Your task to perform on an android device: Go to Android settings Image 0: 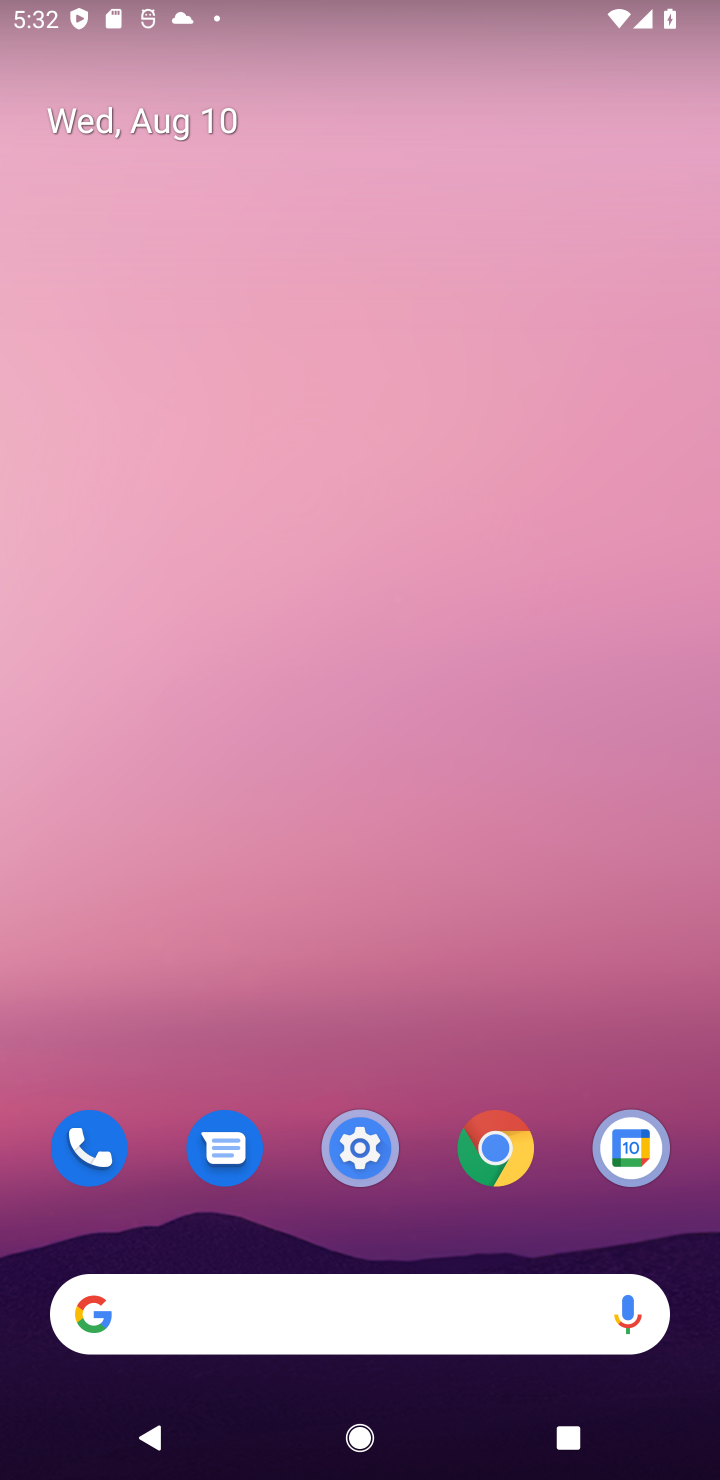
Step 0: click (375, 1140)
Your task to perform on an android device: Go to Android settings Image 1: 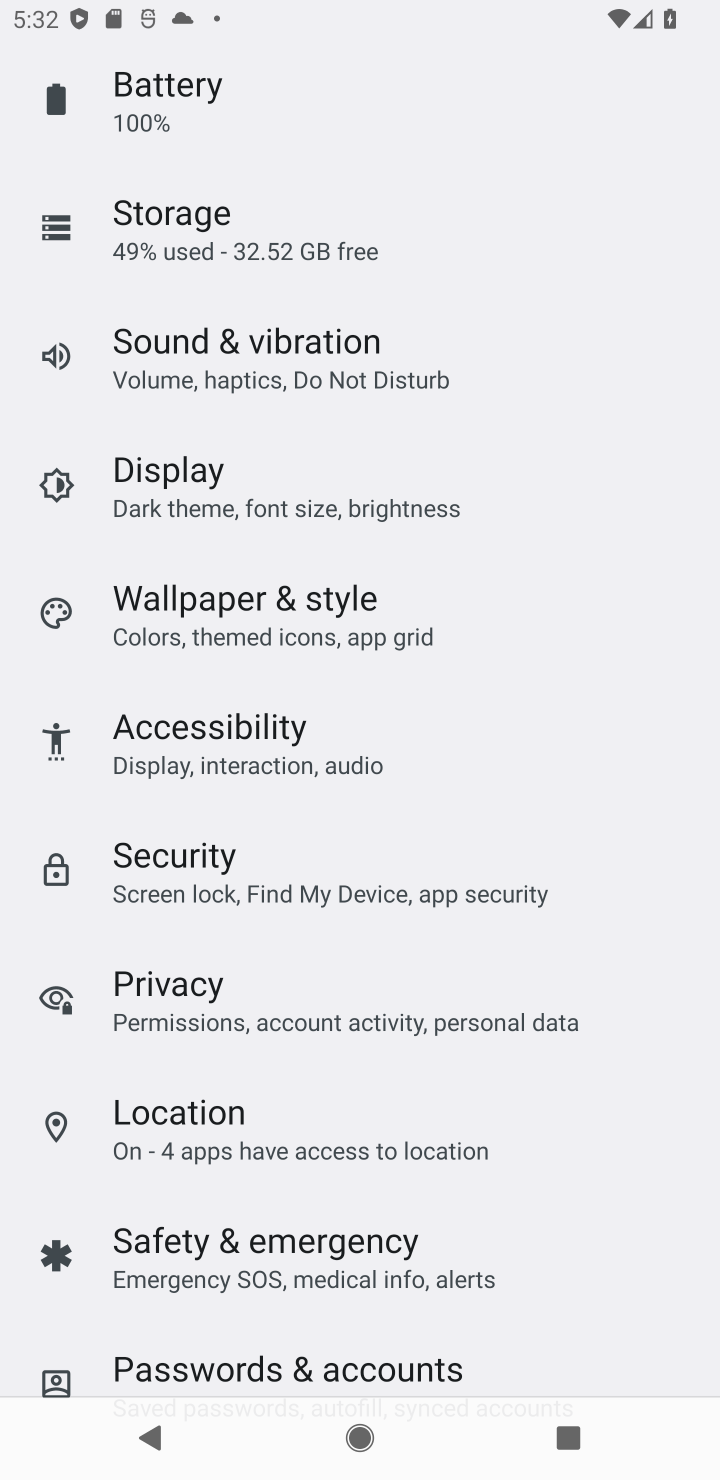
Step 1: drag from (285, 1195) to (395, 74)
Your task to perform on an android device: Go to Android settings Image 2: 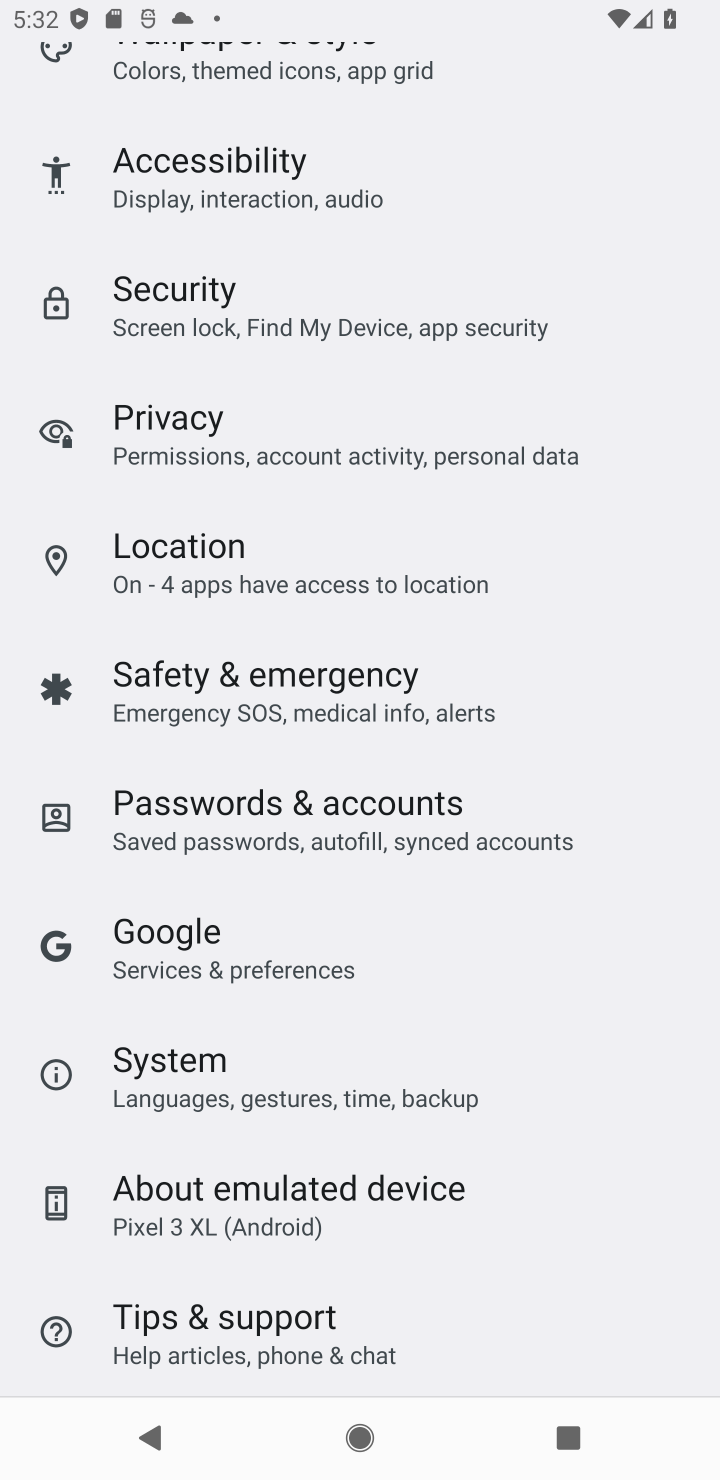
Step 2: drag from (563, 1184) to (581, 781)
Your task to perform on an android device: Go to Android settings Image 3: 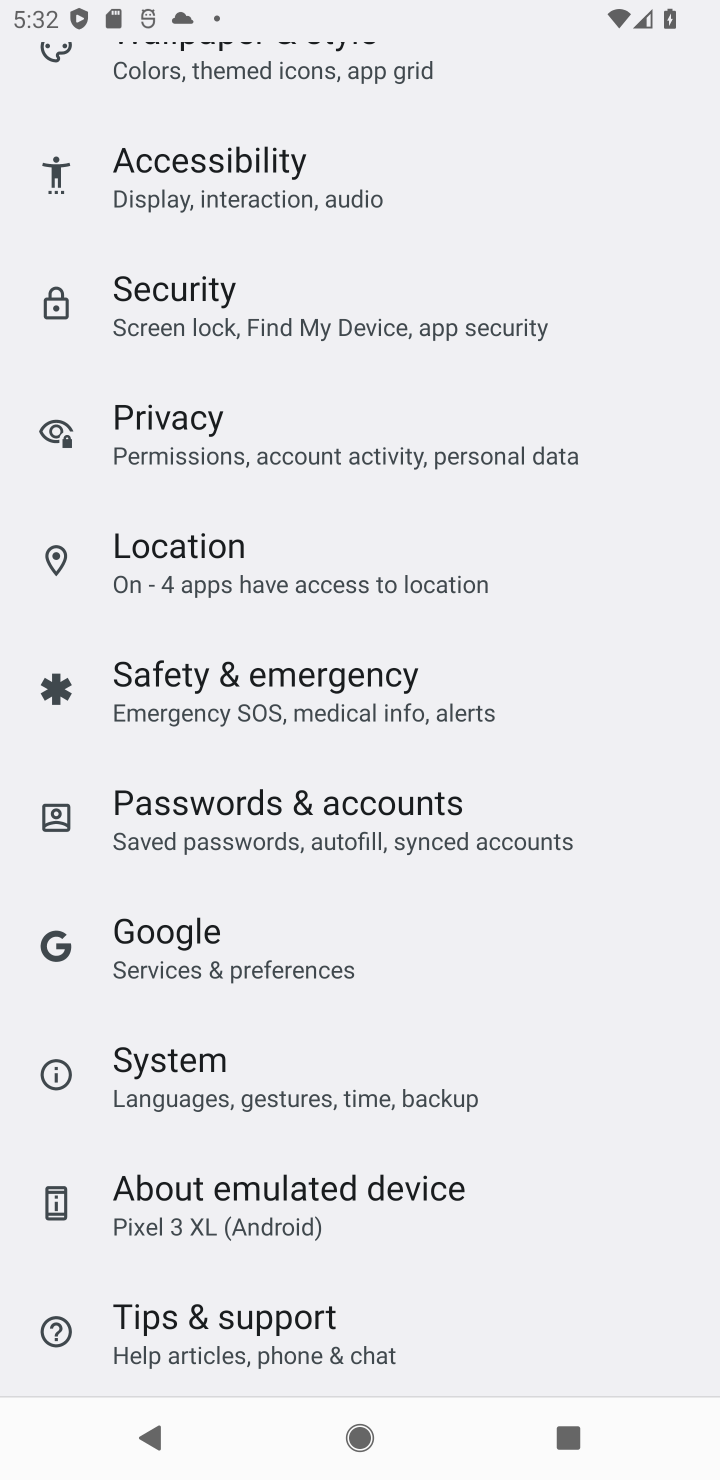
Step 3: click (215, 1187)
Your task to perform on an android device: Go to Android settings Image 4: 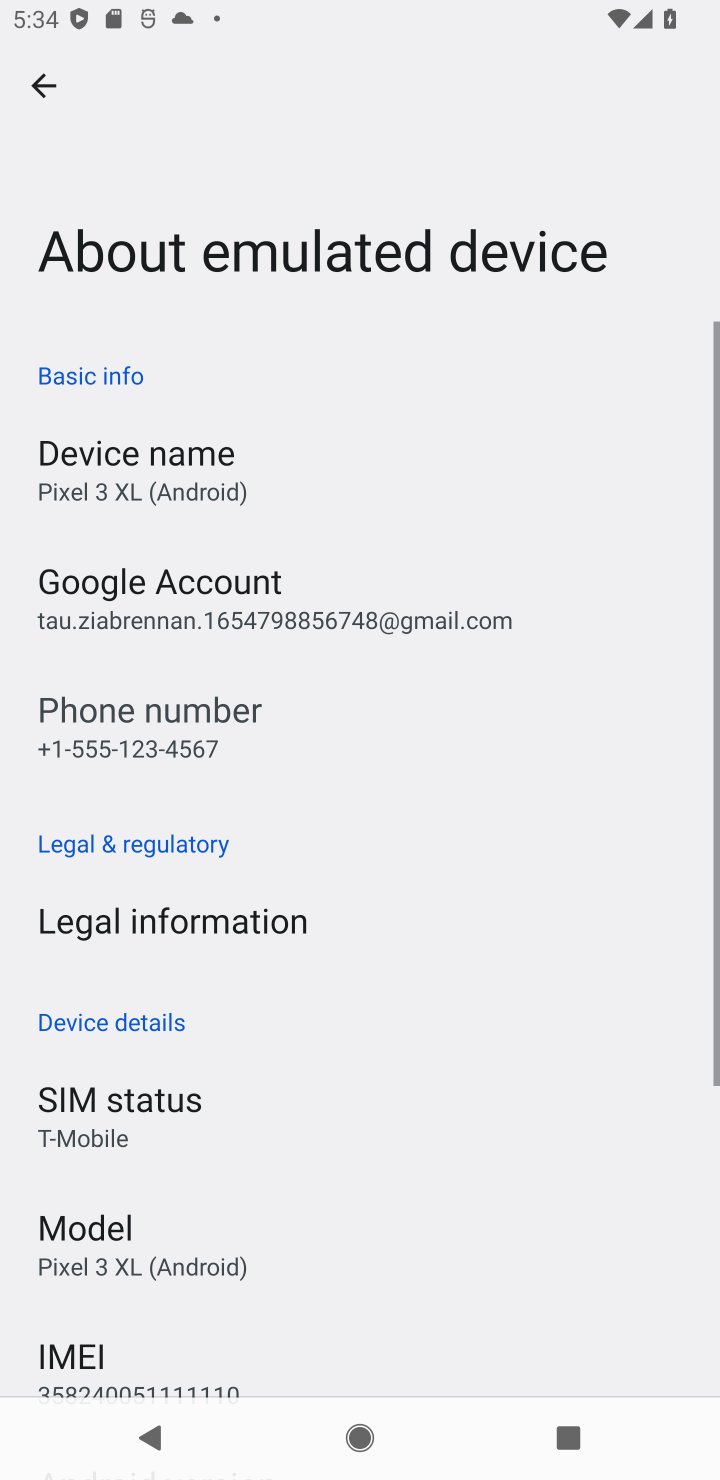
Step 4: task complete